Your task to perform on an android device: allow cookies in the chrome app Image 0: 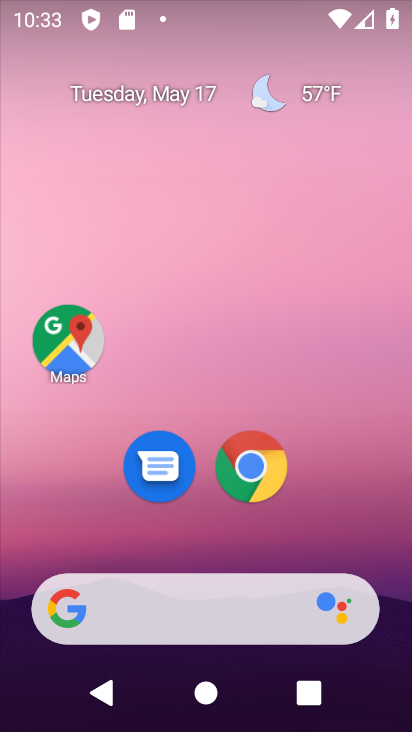
Step 0: drag from (214, 559) to (308, 14)
Your task to perform on an android device: allow cookies in the chrome app Image 1: 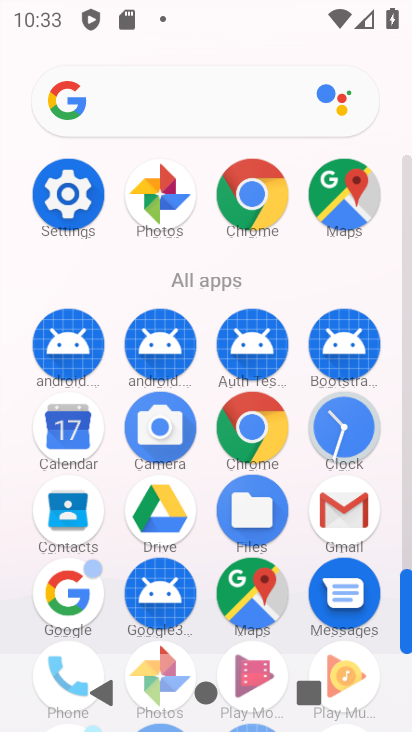
Step 1: click (275, 193)
Your task to perform on an android device: allow cookies in the chrome app Image 2: 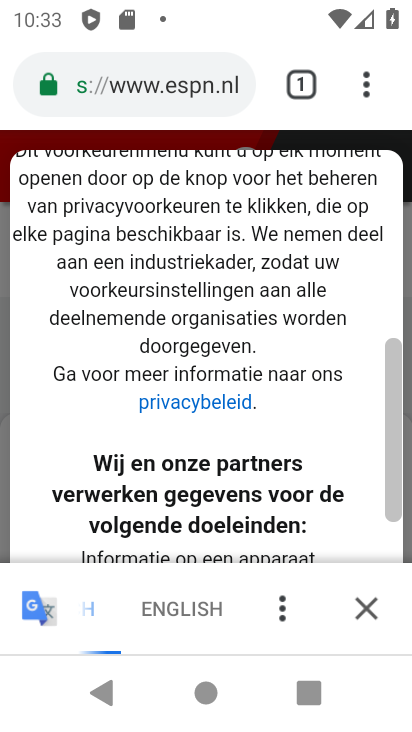
Step 2: click (362, 87)
Your task to perform on an android device: allow cookies in the chrome app Image 3: 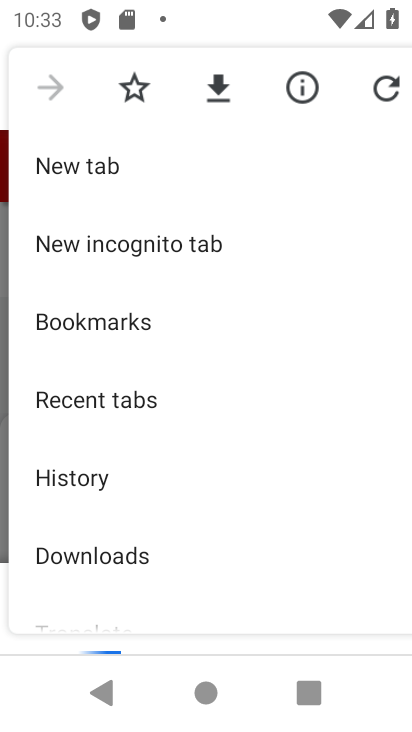
Step 3: drag from (134, 569) to (85, 171)
Your task to perform on an android device: allow cookies in the chrome app Image 4: 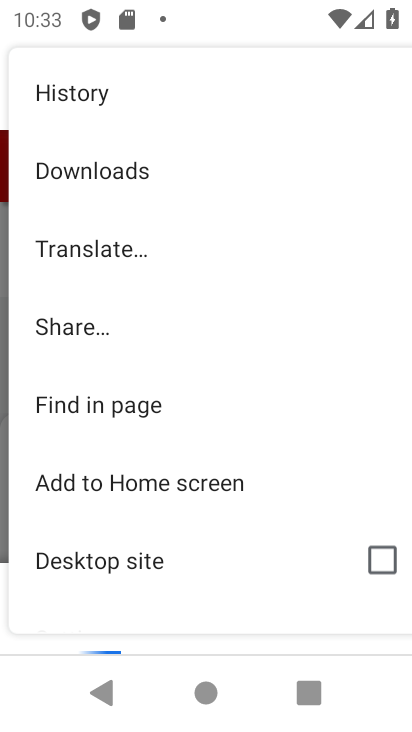
Step 4: drag from (63, 590) to (57, 147)
Your task to perform on an android device: allow cookies in the chrome app Image 5: 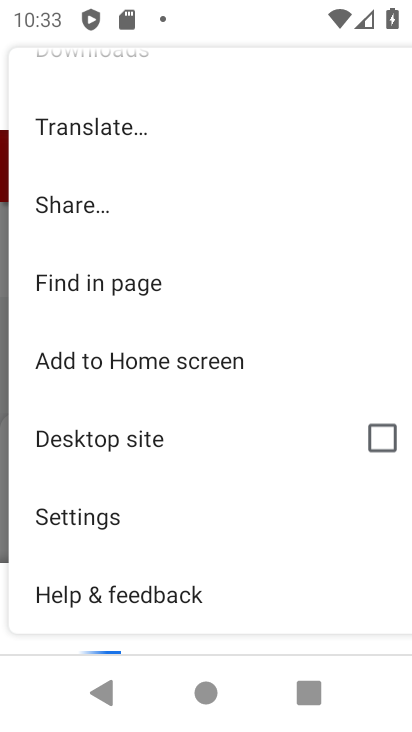
Step 5: click (65, 528)
Your task to perform on an android device: allow cookies in the chrome app Image 6: 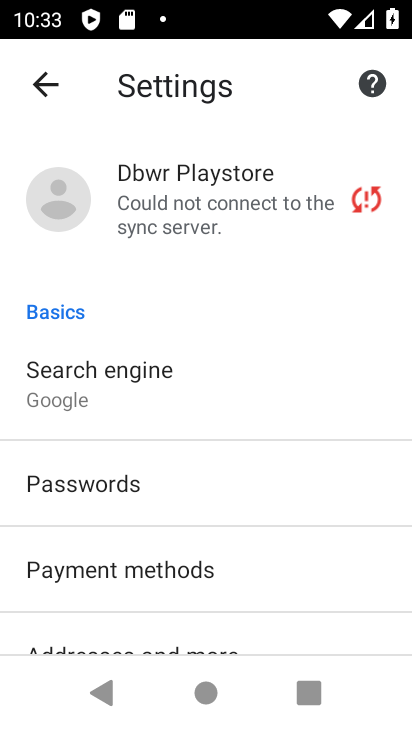
Step 6: drag from (134, 542) to (78, 82)
Your task to perform on an android device: allow cookies in the chrome app Image 7: 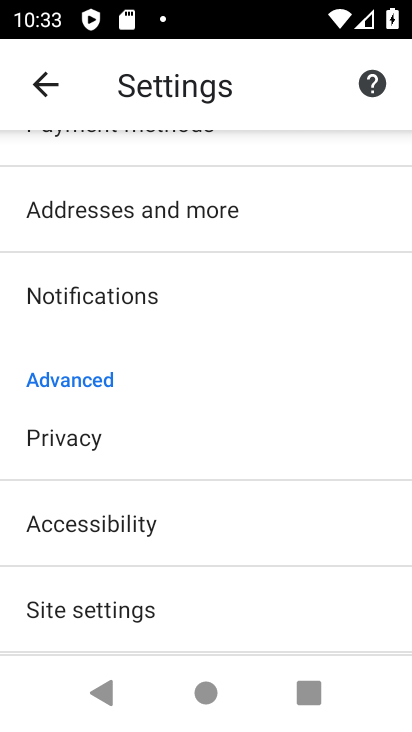
Step 7: drag from (108, 566) to (74, 166)
Your task to perform on an android device: allow cookies in the chrome app Image 8: 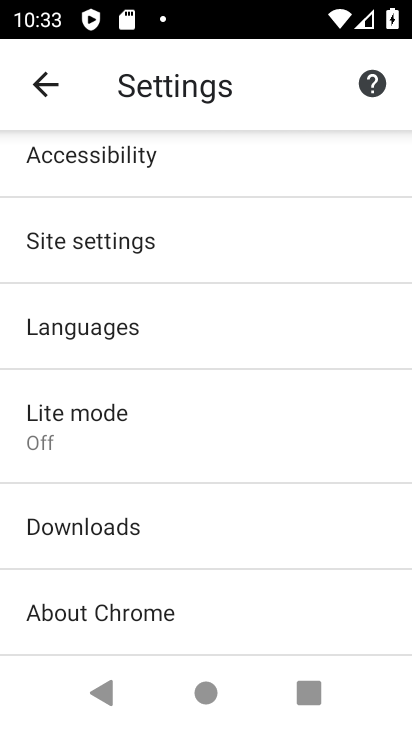
Step 8: click (131, 251)
Your task to perform on an android device: allow cookies in the chrome app Image 9: 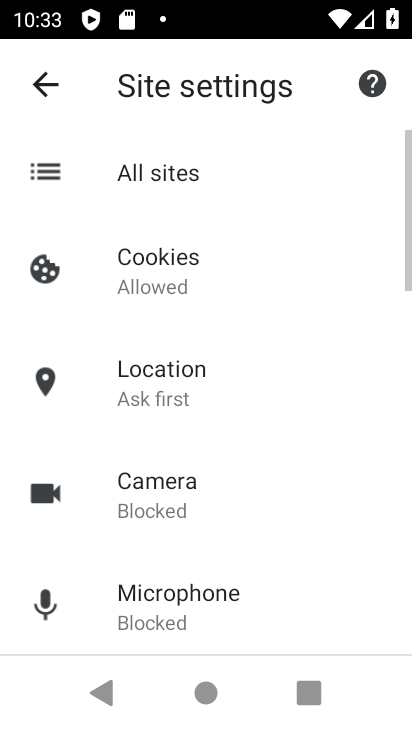
Step 9: click (172, 286)
Your task to perform on an android device: allow cookies in the chrome app Image 10: 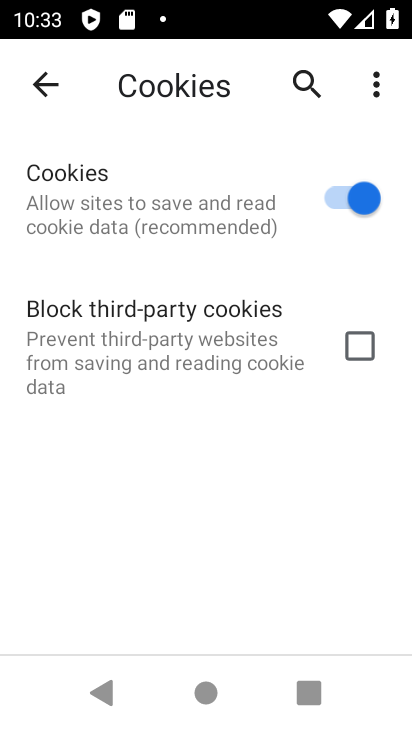
Step 10: task complete